Your task to perform on an android device: install app "HBO Max: Stream TV & Movies" Image 0: 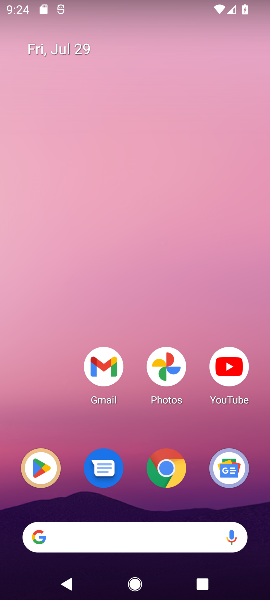
Step 0: click (37, 463)
Your task to perform on an android device: install app "HBO Max: Stream TV & Movies" Image 1: 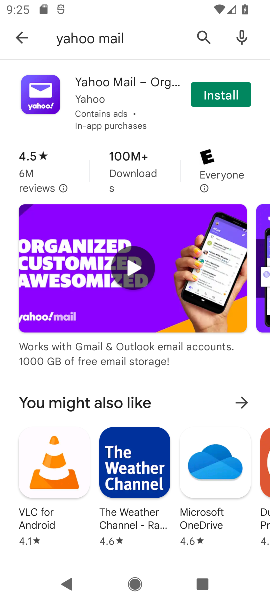
Step 1: click (201, 39)
Your task to perform on an android device: install app "HBO Max: Stream TV & Movies" Image 2: 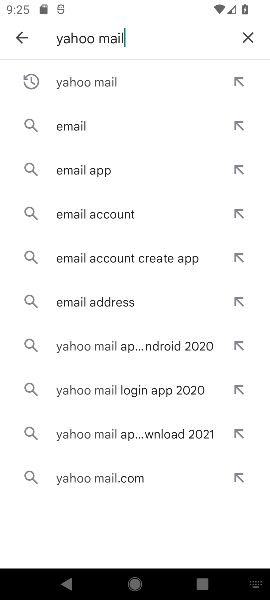
Step 2: click (251, 34)
Your task to perform on an android device: install app "HBO Max: Stream TV & Movies" Image 3: 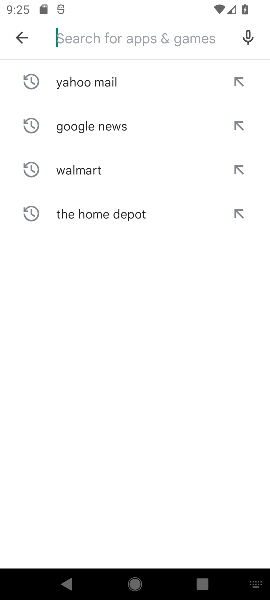
Step 3: click (80, 51)
Your task to perform on an android device: install app "HBO Max: Stream TV & Movies" Image 4: 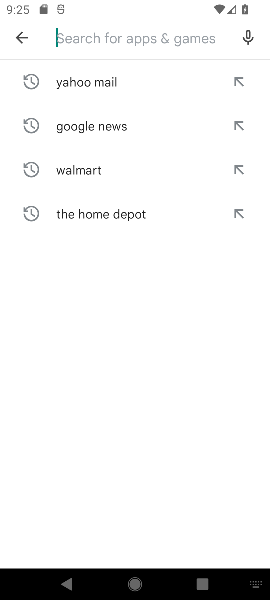
Step 4: type "hbo"
Your task to perform on an android device: install app "HBO Max: Stream TV & Movies" Image 5: 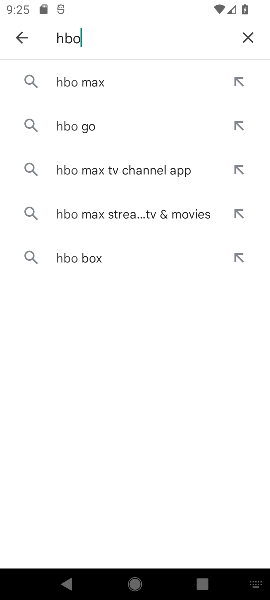
Step 5: click (117, 81)
Your task to perform on an android device: install app "HBO Max: Stream TV & Movies" Image 6: 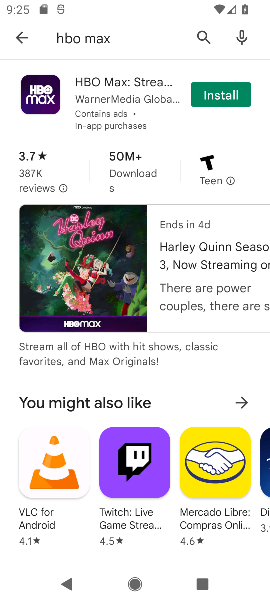
Step 6: click (216, 94)
Your task to perform on an android device: install app "HBO Max: Stream TV & Movies" Image 7: 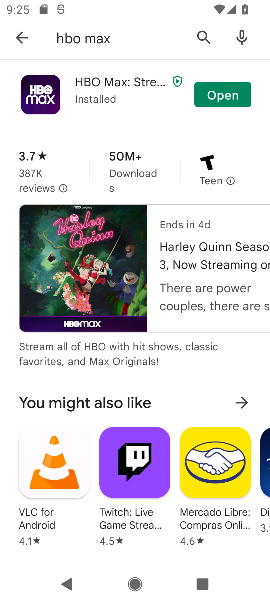
Step 7: task complete